Your task to perform on an android device: turn pop-ups on in chrome Image 0: 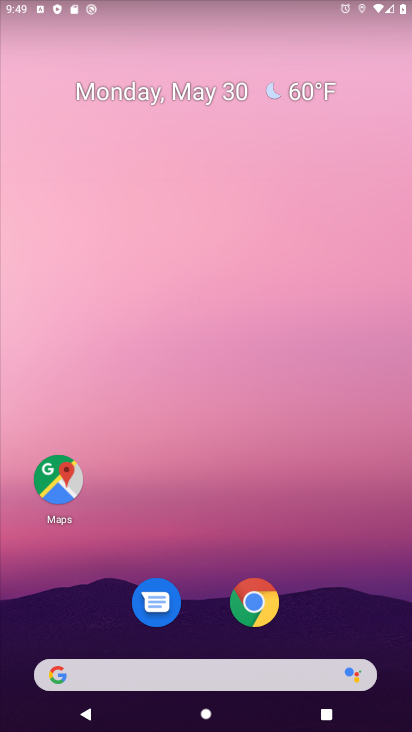
Step 0: click (254, 600)
Your task to perform on an android device: turn pop-ups on in chrome Image 1: 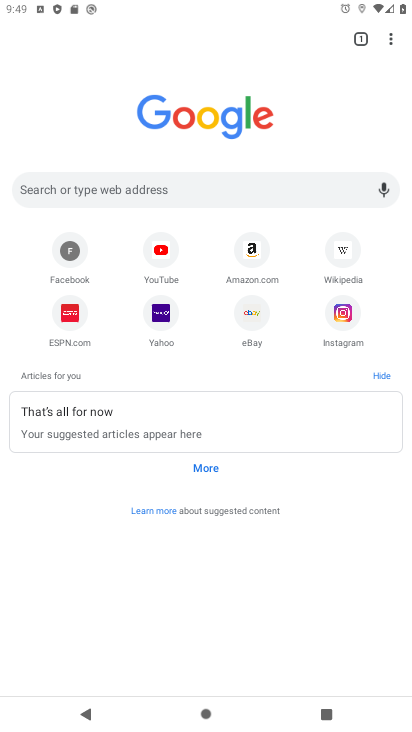
Step 1: click (383, 37)
Your task to perform on an android device: turn pop-ups on in chrome Image 2: 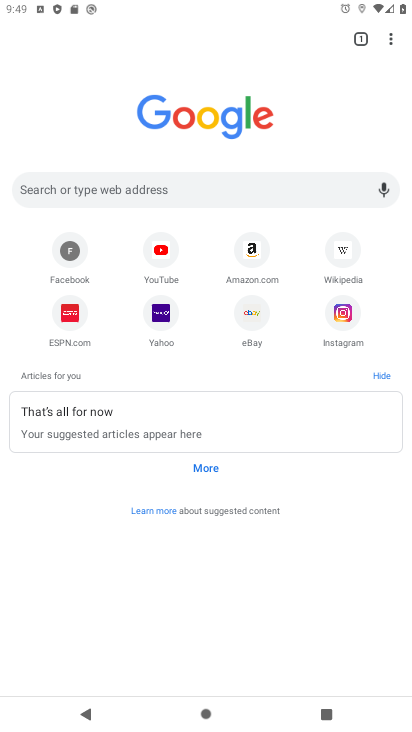
Step 2: drag from (385, 42) to (269, 326)
Your task to perform on an android device: turn pop-ups on in chrome Image 3: 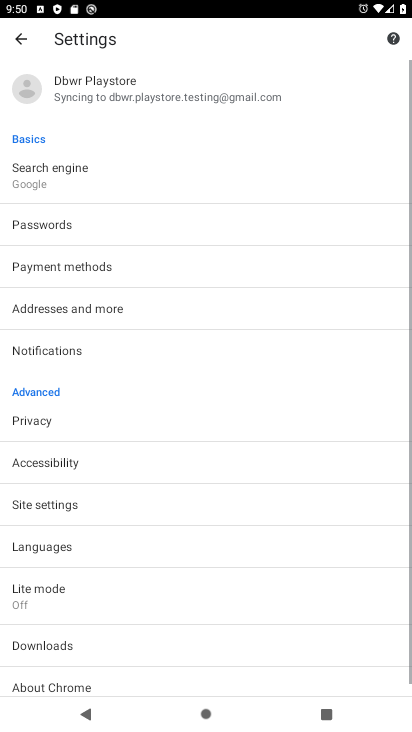
Step 3: drag from (157, 643) to (172, 343)
Your task to perform on an android device: turn pop-ups on in chrome Image 4: 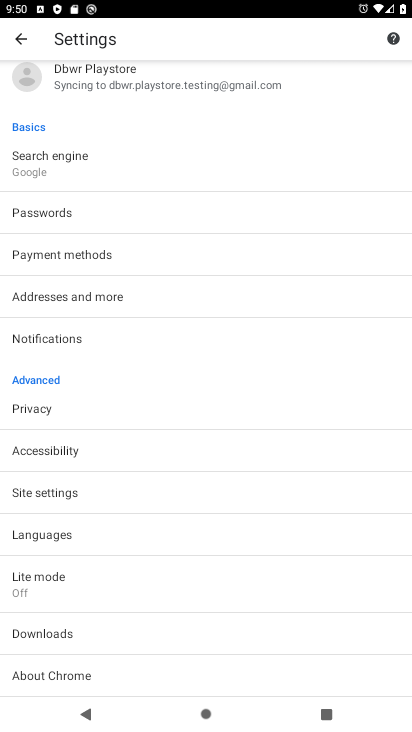
Step 4: click (84, 487)
Your task to perform on an android device: turn pop-ups on in chrome Image 5: 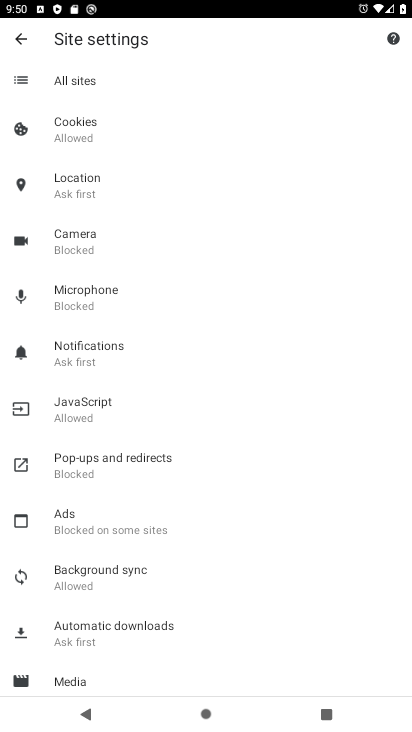
Step 5: drag from (161, 585) to (188, 426)
Your task to perform on an android device: turn pop-ups on in chrome Image 6: 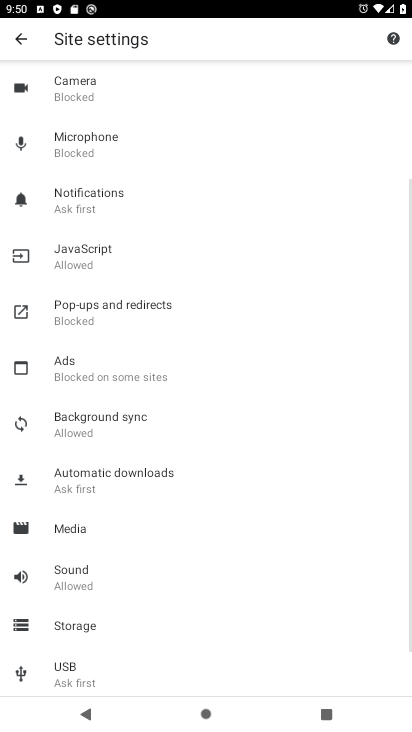
Step 6: click (134, 310)
Your task to perform on an android device: turn pop-ups on in chrome Image 7: 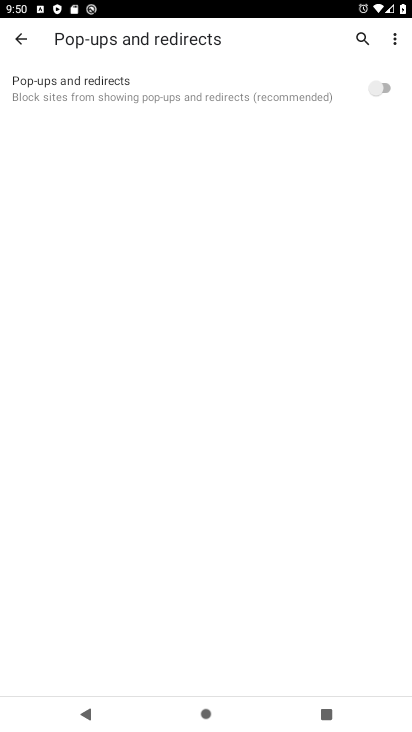
Step 7: click (384, 80)
Your task to perform on an android device: turn pop-ups on in chrome Image 8: 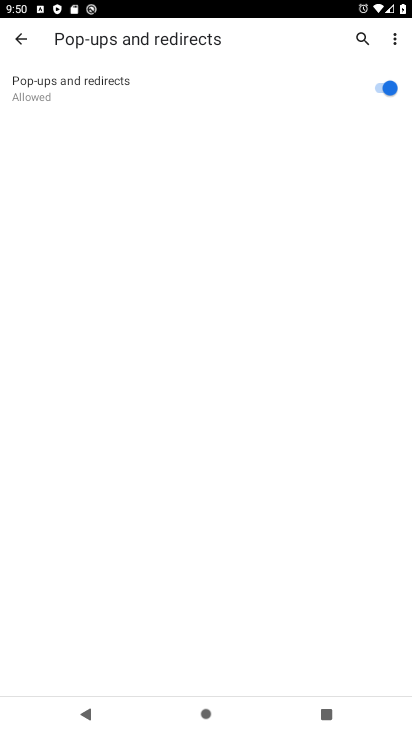
Step 8: task complete